Your task to perform on an android device: Go to settings Image 0: 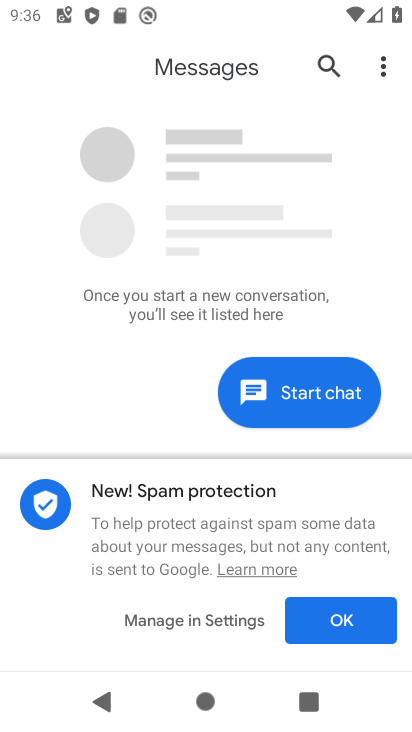
Step 0: press home button
Your task to perform on an android device: Go to settings Image 1: 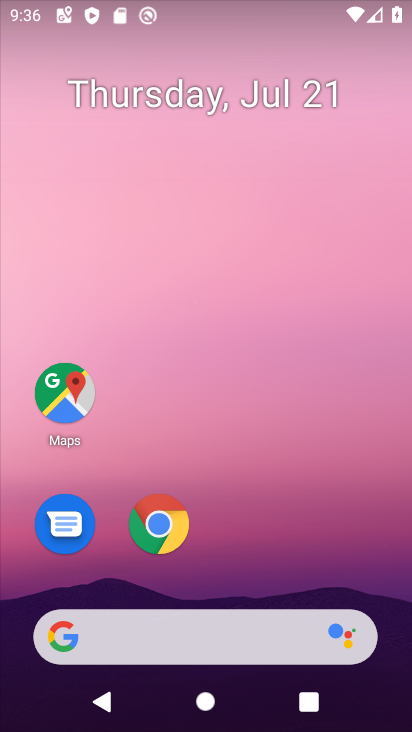
Step 1: drag from (182, 621) to (304, 109)
Your task to perform on an android device: Go to settings Image 2: 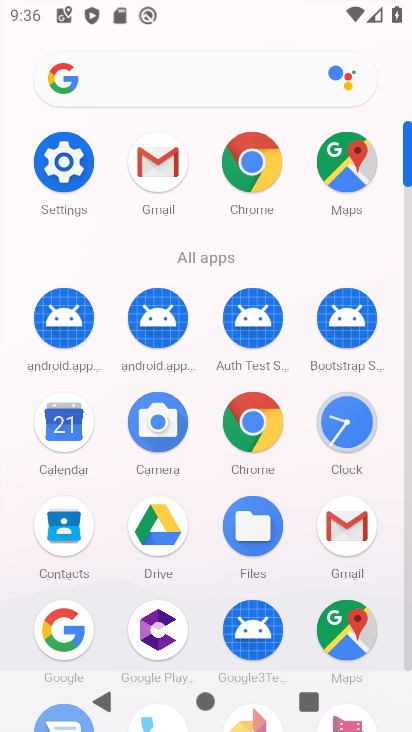
Step 2: click (57, 153)
Your task to perform on an android device: Go to settings Image 3: 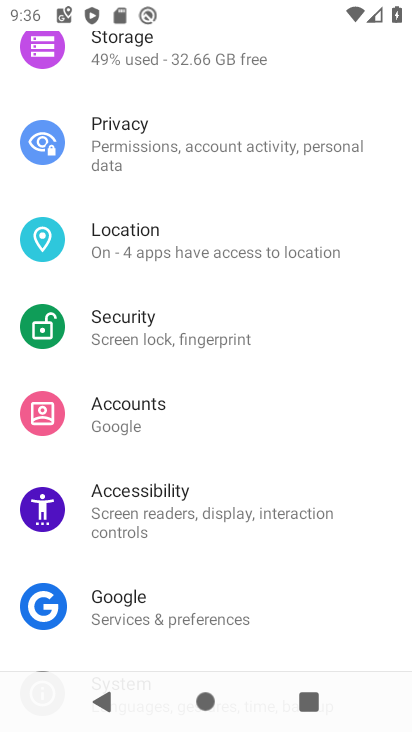
Step 3: task complete